Your task to perform on an android device: stop showing notifications on the lock screen Image 0: 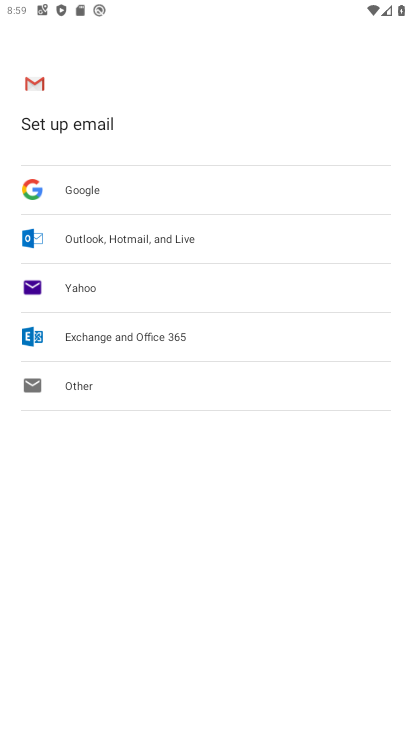
Step 0: press home button
Your task to perform on an android device: stop showing notifications on the lock screen Image 1: 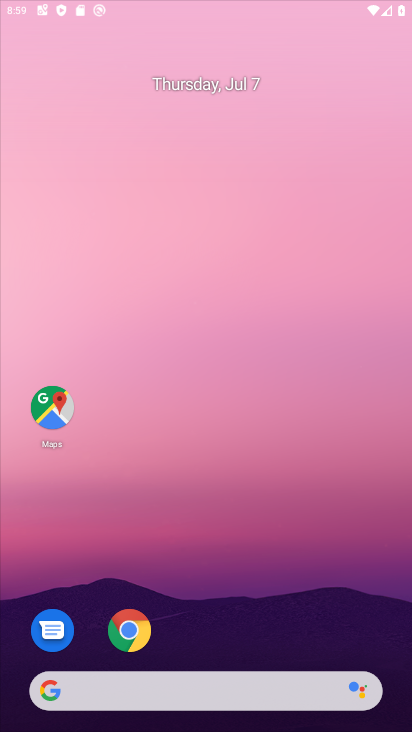
Step 1: drag from (206, 637) to (72, 9)
Your task to perform on an android device: stop showing notifications on the lock screen Image 2: 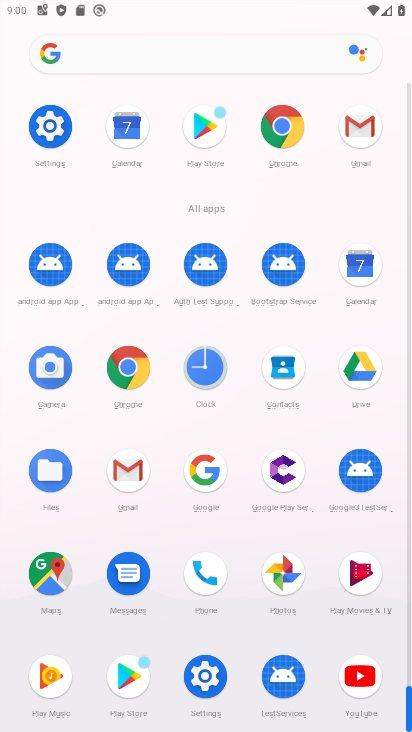
Step 2: click (50, 121)
Your task to perform on an android device: stop showing notifications on the lock screen Image 3: 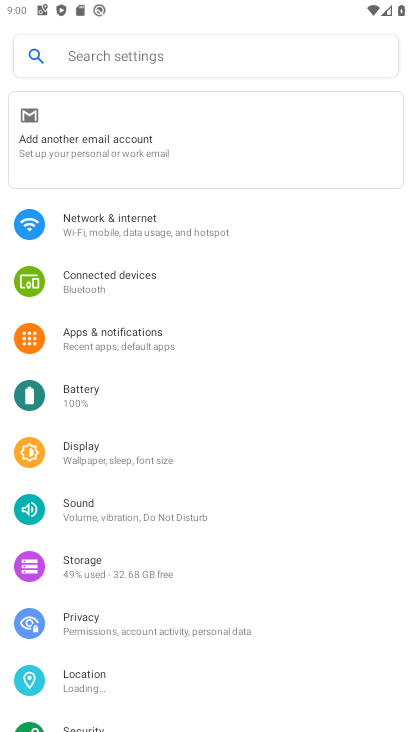
Step 3: drag from (239, 618) to (314, 108)
Your task to perform on an android device: stop showing notifications on the lock screen Image 4: 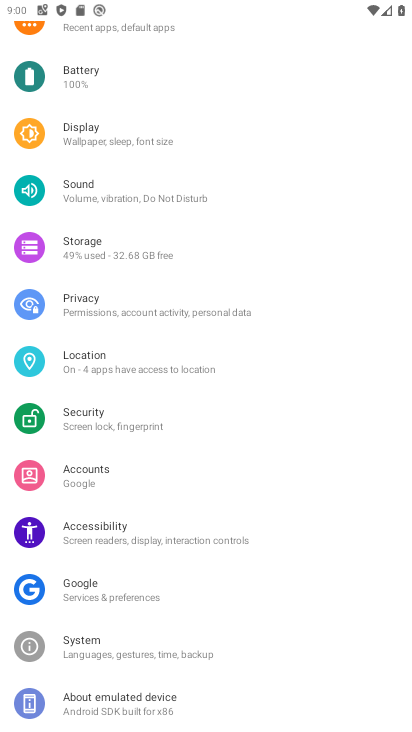
Step 4: drag from (258, 631) to (276, 139)
Your task to perform on an android device: stop showing notifications on the lock screen Image 5: 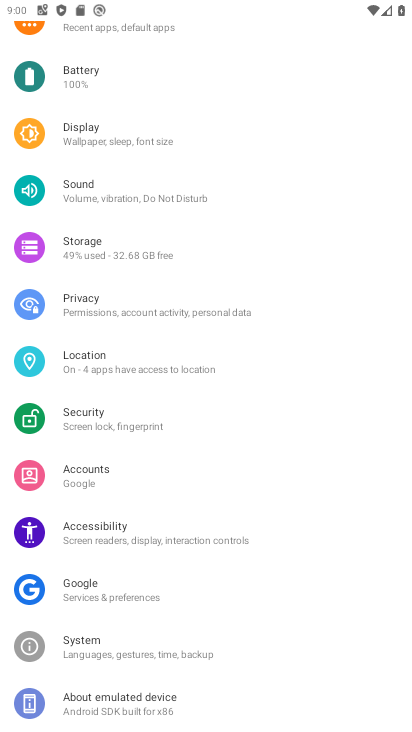
Step 5: drag from (232, 656) to (280, 163)
Your task to perform on an android device: stop showing notifications on the lock screen Image 6: 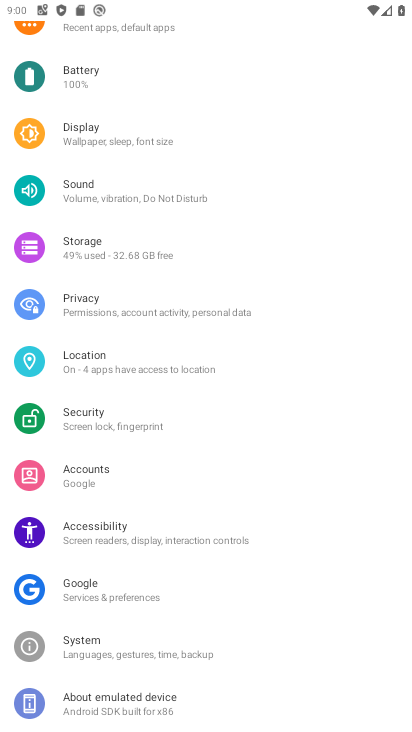
Step 6: drag from (230, 152) to (288, 674)
Your task to perform on an android device: stop showing notifications on the lock screen Image 7: 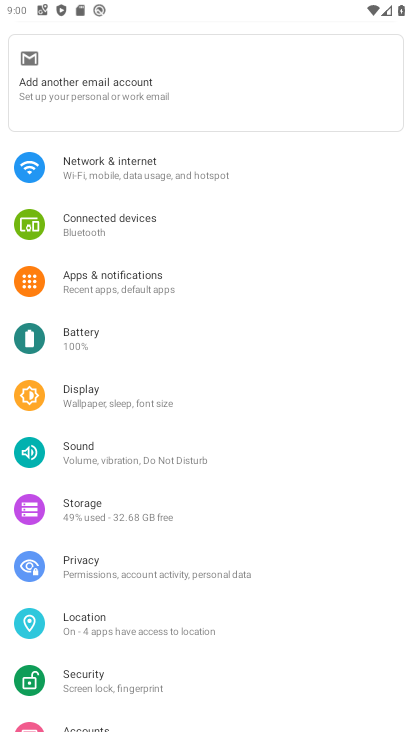
Step 7: click (97, 275)
Your task to perform on an android device: stop showing notifications on the lock screen Image 8: 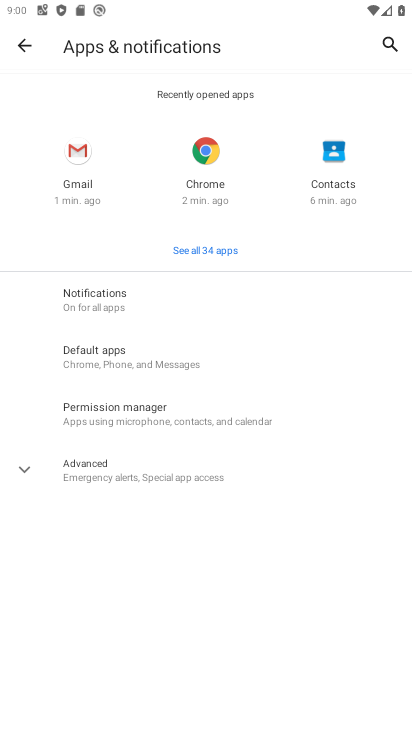
Step 8: click (129, 303)
Your task to perform on an android device: stop showing notifications on the lock screen Image 9: 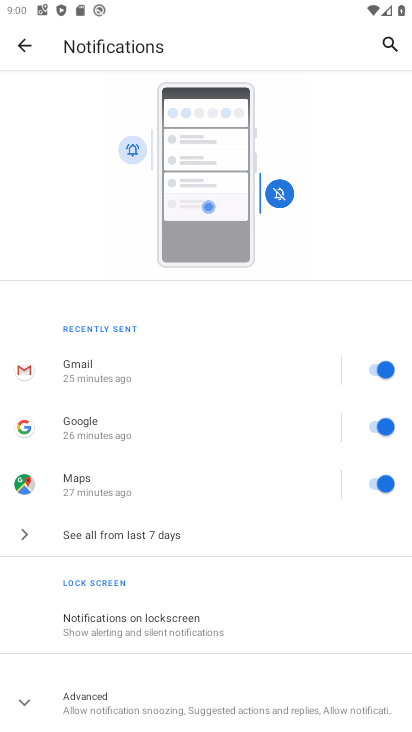
Step 9: click (188, 615)
Your task to perform on an android device: stop showing notifications on the lock screen Image 10: 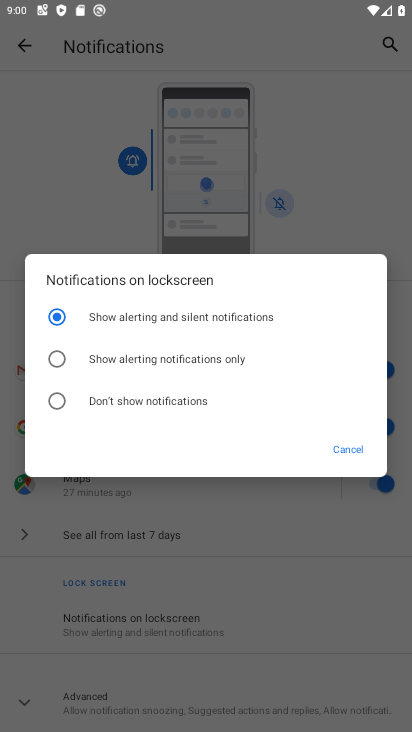
Step 10: click (73, 351)
Your task to perform on an android device: stop showing notifications on the lock screen Image 11: 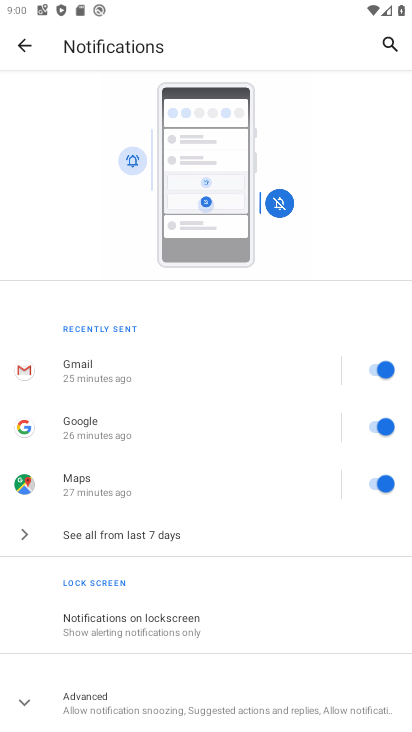
Step 11: task complete